Your task to perform on an android device: Open notification settings Image 0: 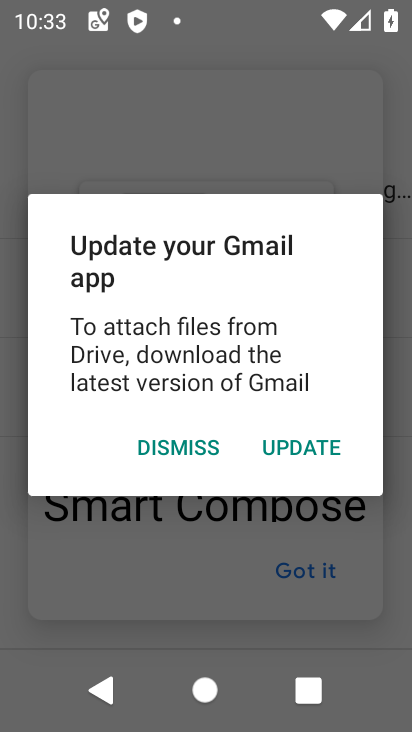
Step 0: press home button
Your task to perform on an android device: Open notification settings Image 1: 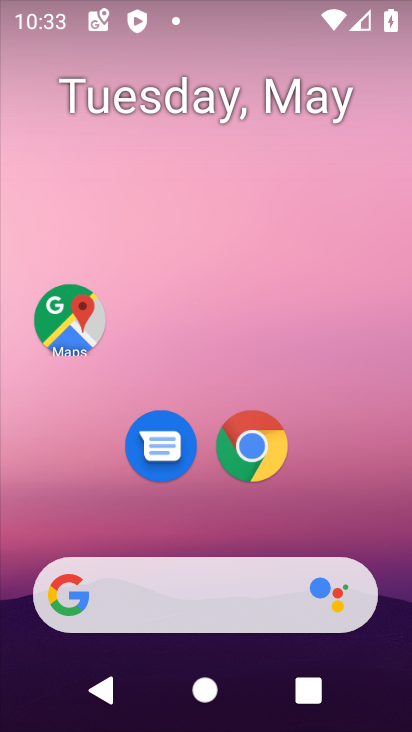
Step 1: drag from (222, 546) to (259, 244)
Your task to perform on an android device: Open notification settings Image 2: 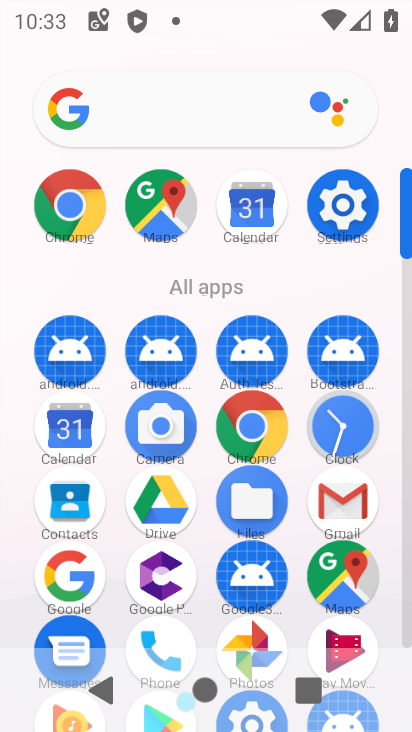
Step 2: click (353, 215)
Your task to perform on an android device: Open notification settings Image 3: 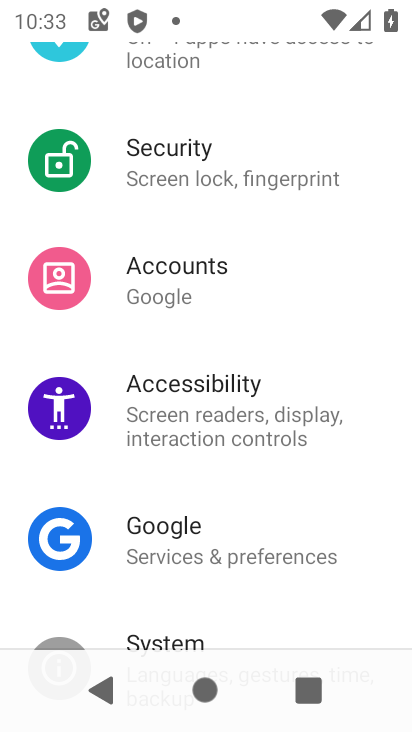
Step 3: drag from (325, 241) to (314, 468)
Your task to perform on an android device: Open notification settings Image 4: 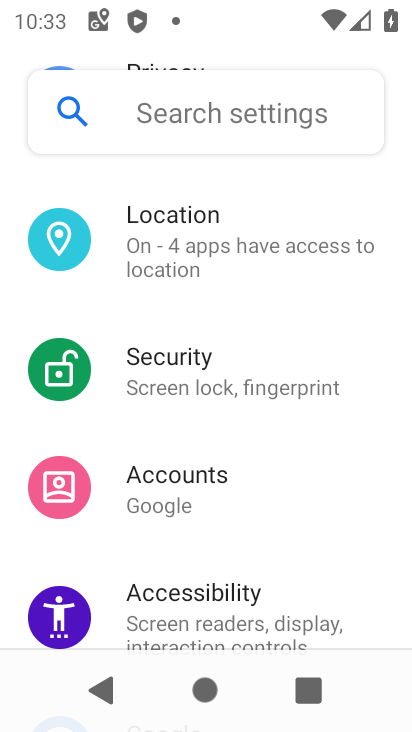
Step 4: drag from (301, 270) to (266, 564)
Your task to perform on an android device: Open notification settings Image 5: 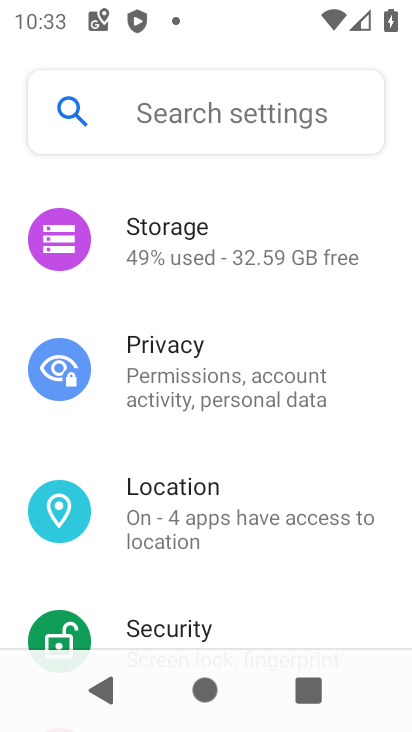
Step 5: drag from (235, 348) to (228, 567)
Your task to perform on an android device: Open notification settings Image 6: 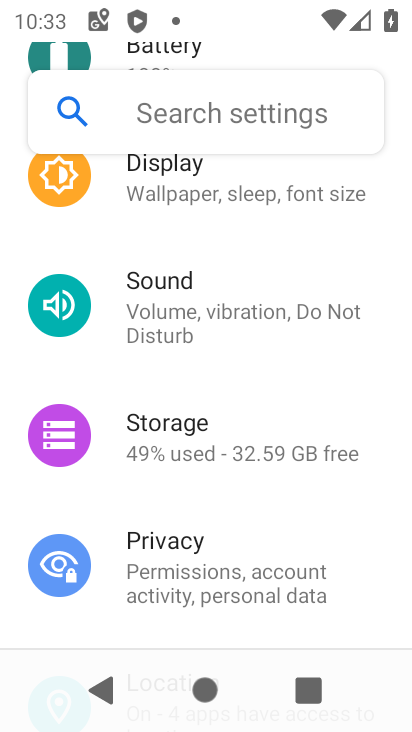
Step 6: drag from (215, 258) to (211, 567)
Your task to perform on an android device: Open notification settings Image 7: 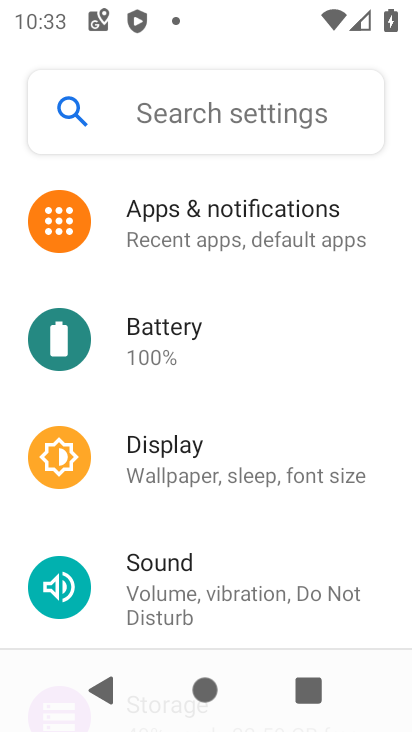
Step 7: click (232, 236)
Your task to perform on an android device: Open notification settings Image 8: 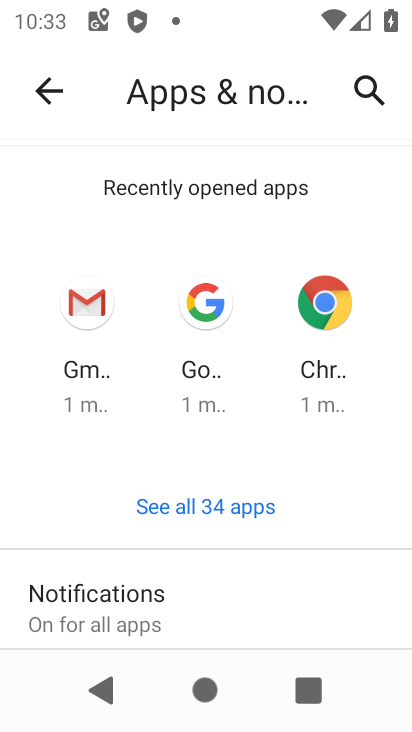
Step 8: drag from (199, 611) to (223, 446)
Your task to perform on an android device: Open notification settings Image 9: 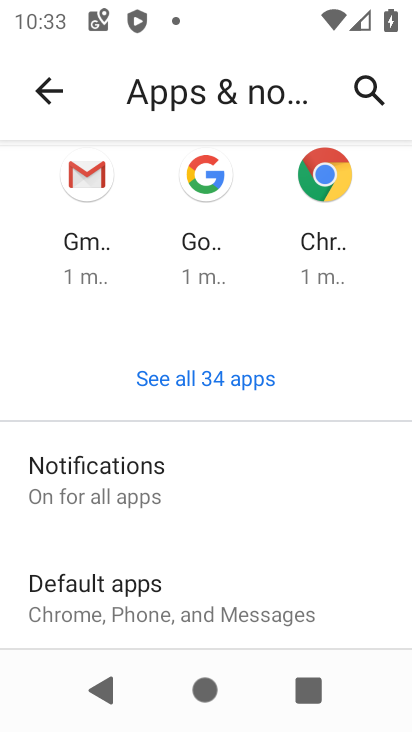
Step 9: click (158, 478)
Your task to perform on an android device: Open notification settings Image 10: 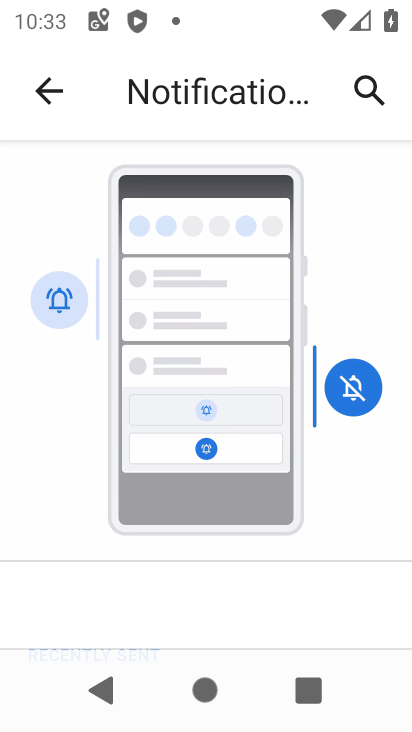
Step 10: task complete